Your task to perform on an android device: open app "Spotify: Music and Podcasts" (install if not already installed) and go to login screen Image 0: 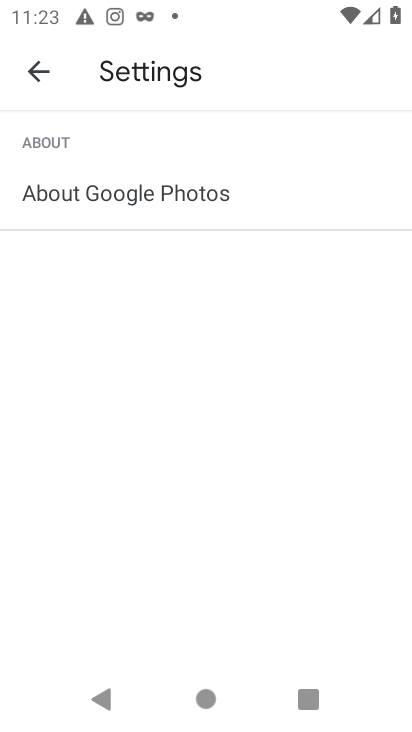
Step 0: press home button
Your task to perform on an android device: open app "Spotify: Music and Podcasts" (install if not already installed) and go to login screen Image 1: 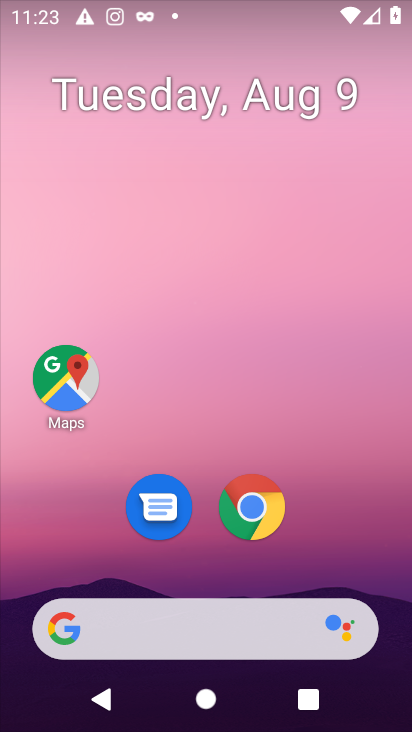
Step 1: drag from (162, 622) to (190, 116)
Your task to perform on an android device: open app "Spotify: Music and Podcasts" (install if not already installed) and go to login screen Image 2: 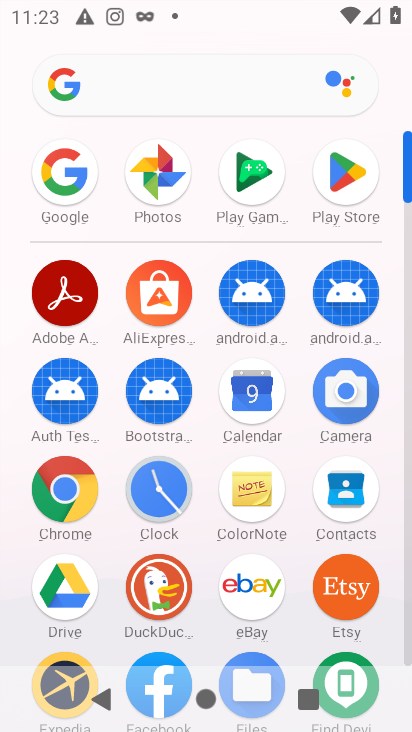
Step 2: click (345, 179)
Your task to perform on an android device: open app "Spotify: Music and Podcasts" (install if not already installed) and go to login screen Image 3: 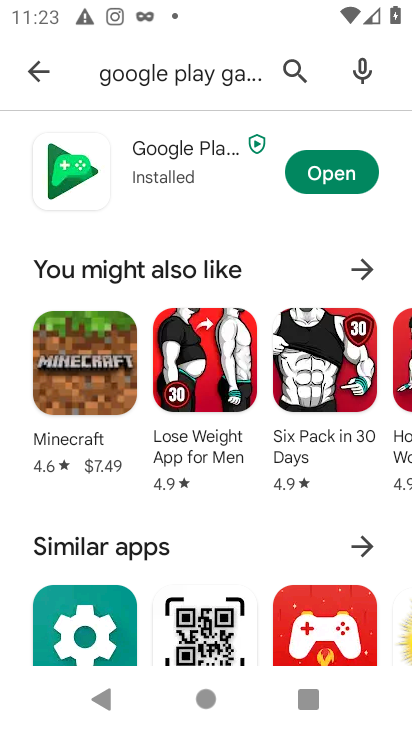
Step 3: click (286, 70)
Your task to perform on an android device: open app "Spotify: Music and Podcasts" (install if not already installed) and go to login screen Image 4: 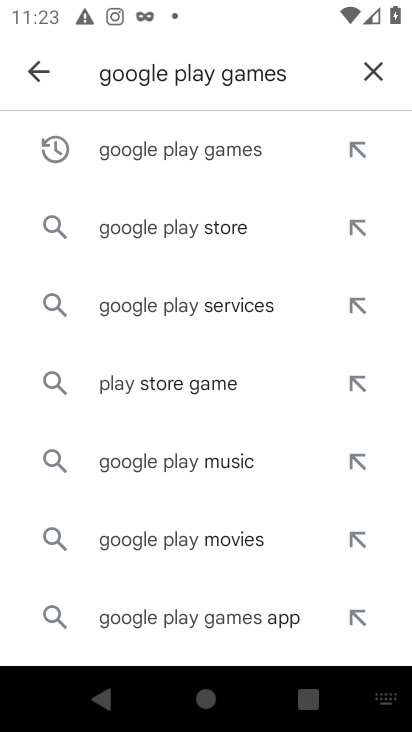
Step 4: click (380, 75)
Your task to perform on an android device: open app "Spotify: Music and Podcasts" (install if not already installed) and go to login screen Image 5: 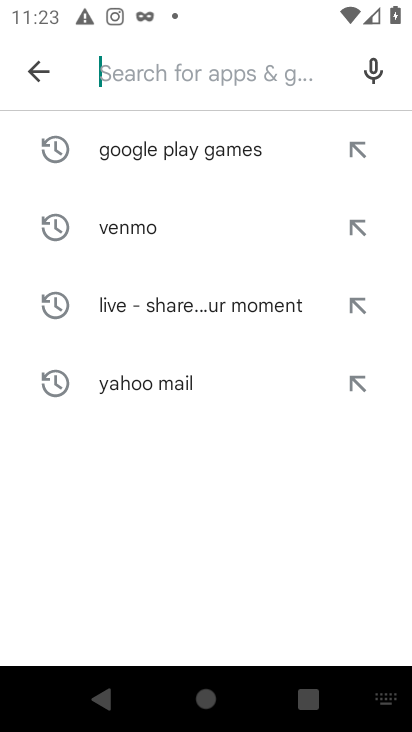
Step 5: type "Spotify: Music and Podcasts"
Your task to perform on an android device: open app "Spotify: Music and Podcasts" (install if not already installed) and go to login screen Image 6: 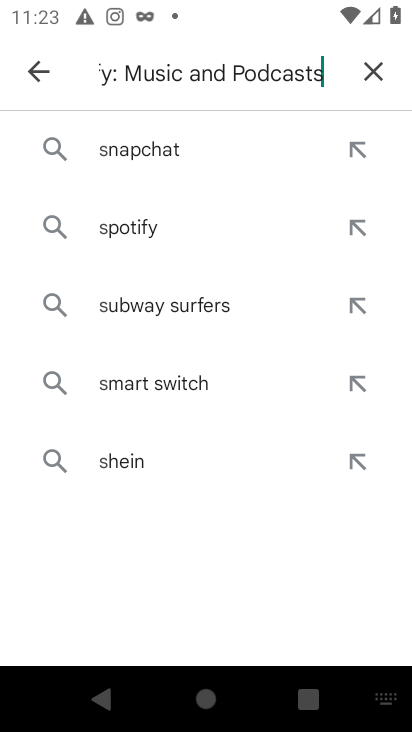
Step 6: type ""
Your task to perform on an android device: open app "Spotify: Music and Podcasts" (install if not already installed) and go to login screen Image 7: 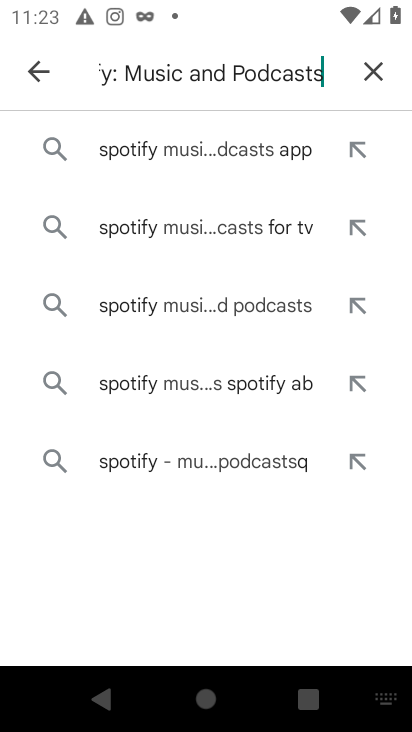
Step 7: click (174, 160)
Your task to perform on an android device: open app "Spotify: Music and Podcasts" (install if not already installed) and go to login screen Image 8: 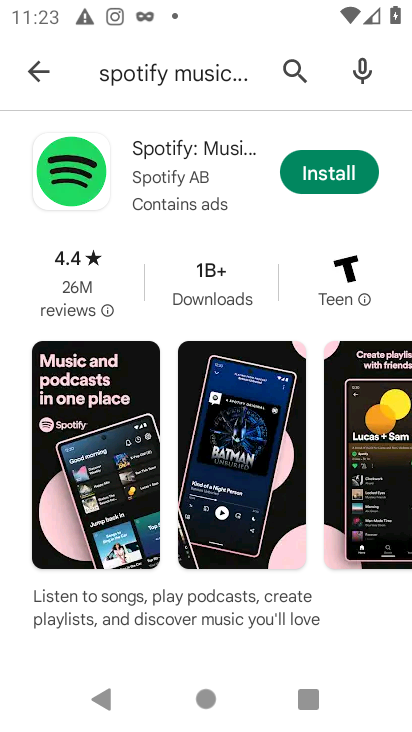
Step 8: click (326, 170)
Your task to perform on an android device: open app "Spotify: Music and Podcasts" (install if not already installed) and go to login screen Image 9: 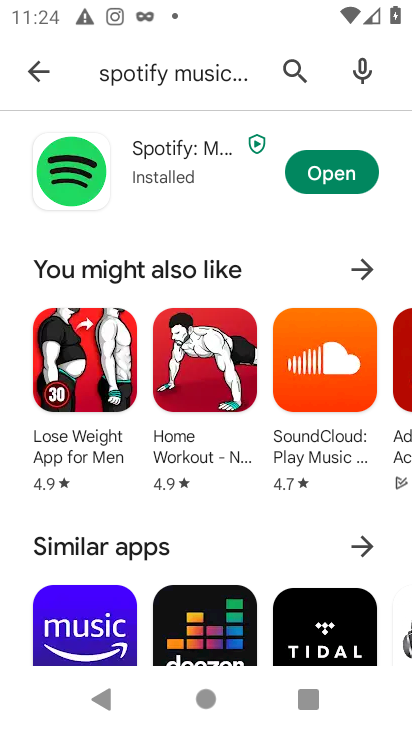
Step 9: click (327, 179)
Your task to perform on an android device: open app "Spotify: Music and Podcasts" (install if not already installed) and go to login screen Image 10: 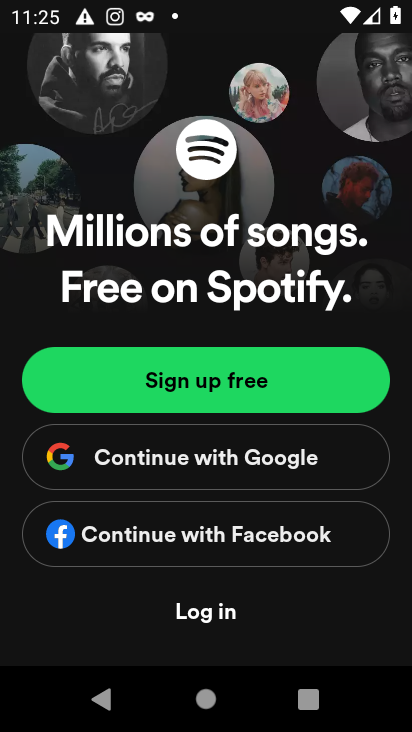
Step 10: click (218, 622)
Your task to perform on an android device: open app "Spotify: Music and Podcasts" (install if not already installed) and go to login screen Image 11: 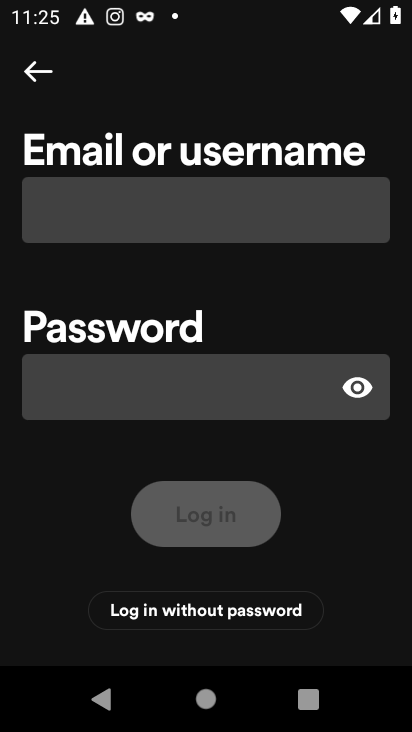
Step 11: task complete